Your task to perform on an android device: turn on priority inbox in the gmail app Image 0: 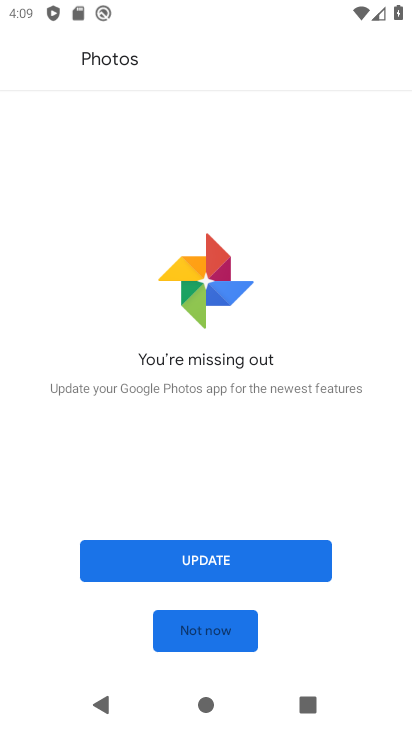
Step 0: press home button
Your task to perform on an android device: turn on priority inbox in the gmail app Image 1: 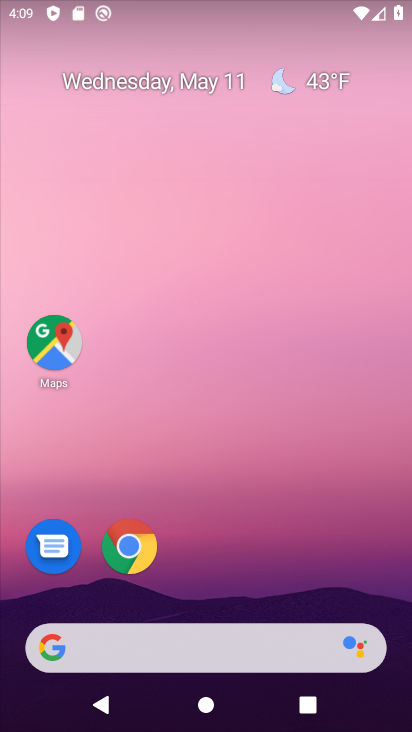
Step 1: drag from (192, 588) to (192, 220)
Your task to perform on an android device: turn on priority inbox in the gmail app Image 2: 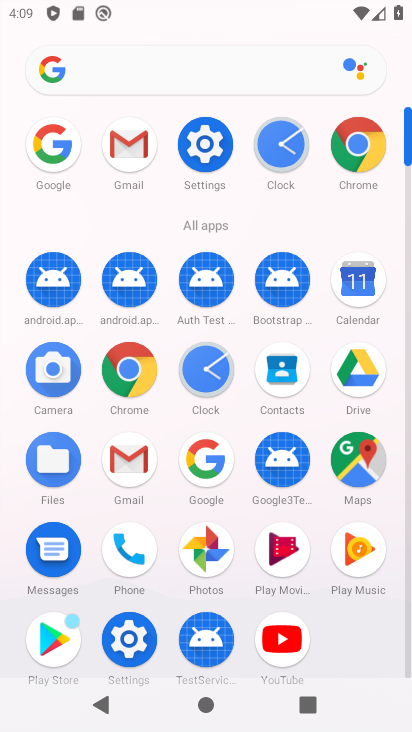
Step 2: click (120, 147)
Your task to perform on an android device: turn on priority inbox in the gmail app Image 3: 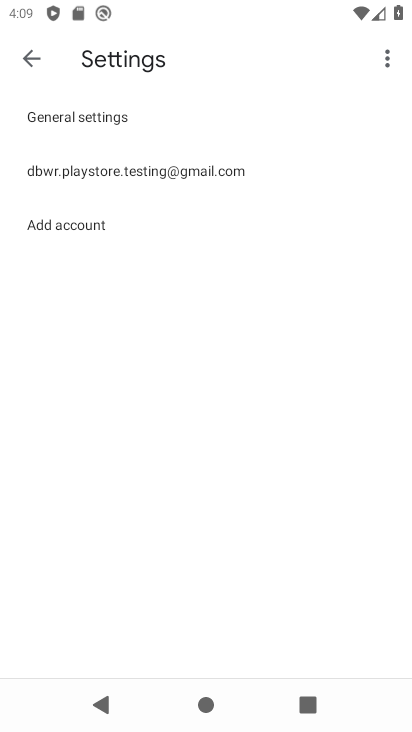
Step 3: click (94, 171)
Your task to perform on an android device: turn on priority inbox in the gmail app Image 4: 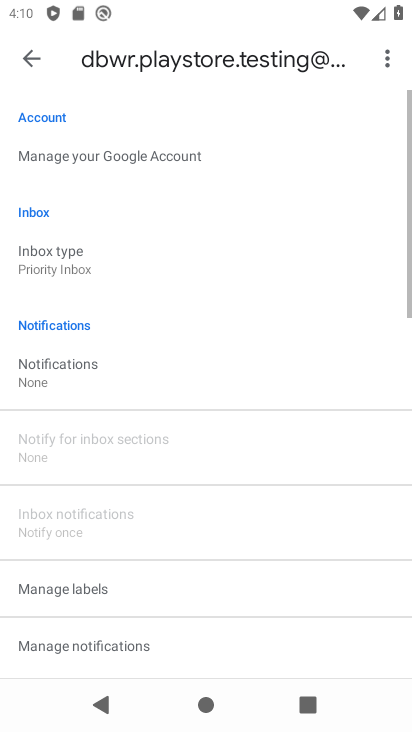
Step 4: click (42, 270)
Your task to perform on an android device: turn on priority inbox in the gmail app Image 5: 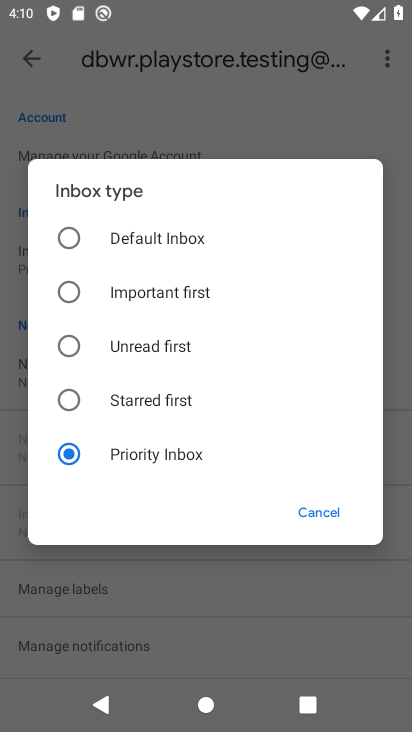
Step 5: click (336, 513)
Your task to perform on an android device: turn on priority inbox in the gmail app Image 6: 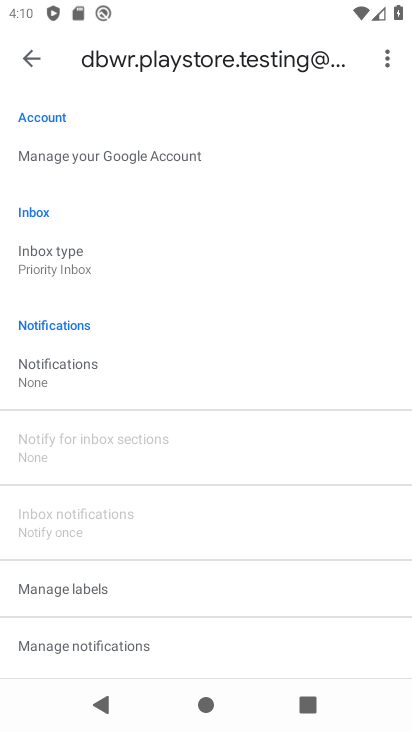
Step 6: task complete